Your task to perform on an android device: remove spam from my inbox in the gmail app Image 0: 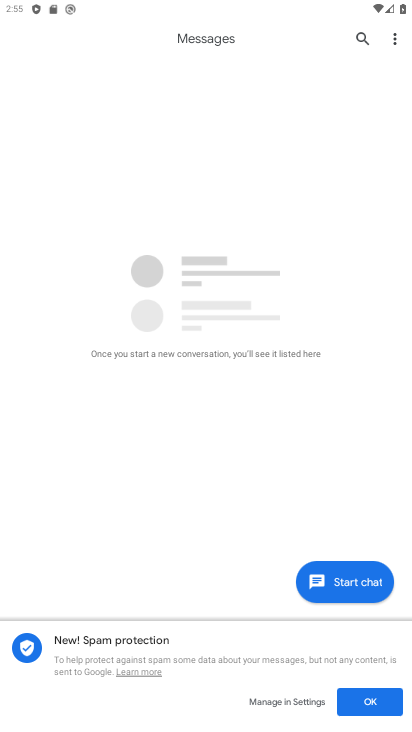
Step 0: press home button
Your task to perform on an android device: remove spam from my inbox in the gmail app Image 1: 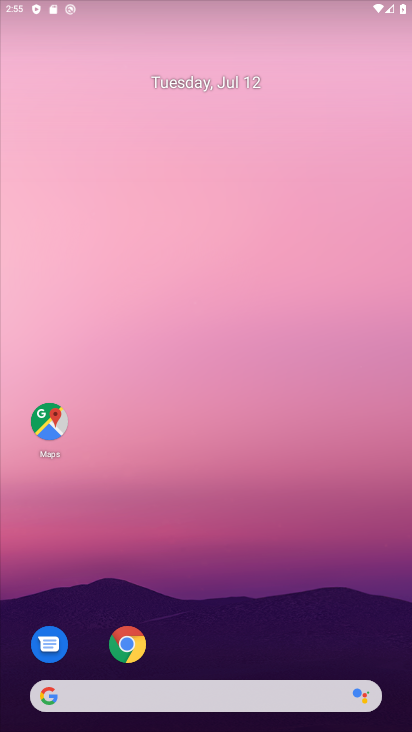
Step 1: drag from (227, 285) to (202, 198)
Your task to perform on an android device: remove spam from my inbox in the gmail app Image 2: 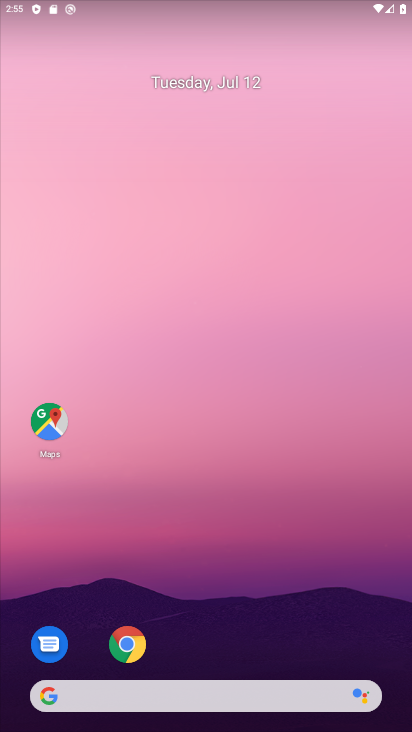
Step 2: drag from (250, 242) to (203, 22)
Your task to perform on an android device: remove spam from my inbox in the gmail app Image 3: 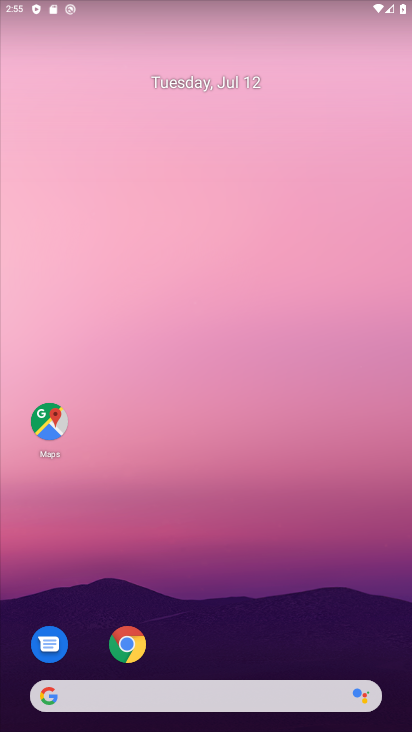
Step 3: drag from (299, 546) to (158, 22)
Your task to perform on an android device: remove spam from my inbox in the gmail app Image 4: 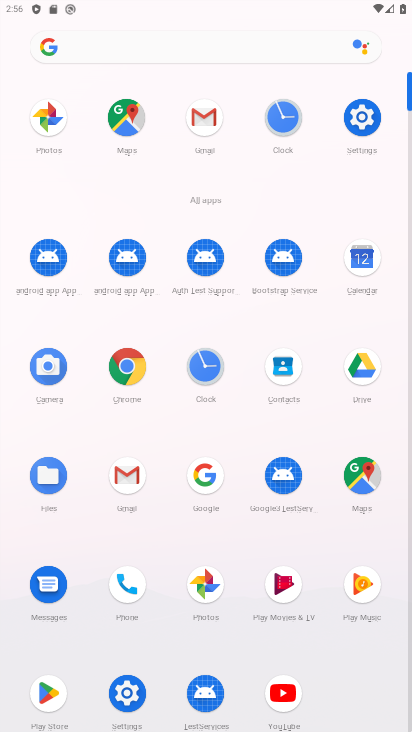
Step 4: click (216, 126)
Your task to perform on an android device: remove spam from my inbox in the gmail app Image 5: 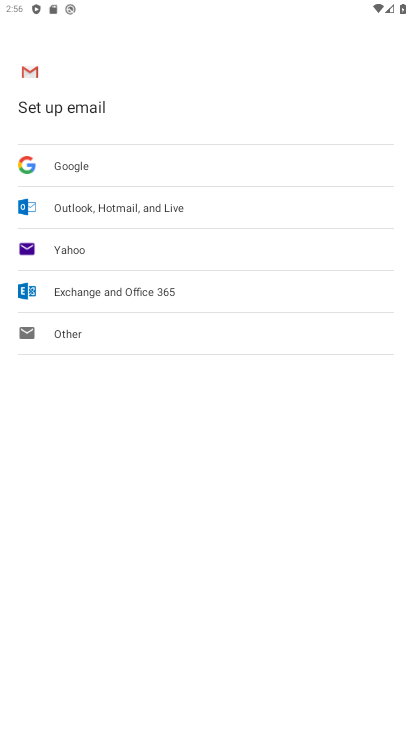
Step 5: press back button
Your task to perform on an android device: remove spam from my inbox in the gmail app Image 6: 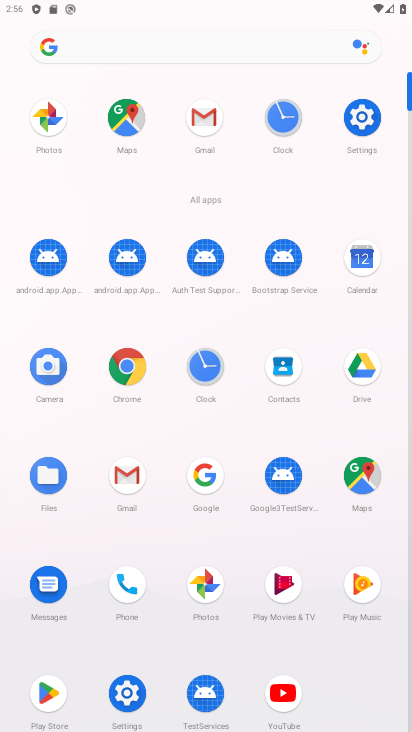
Step 6: click (216, 125)
Your task to perform on an android device: remove spam from my inbox in the gmail app Image 7: 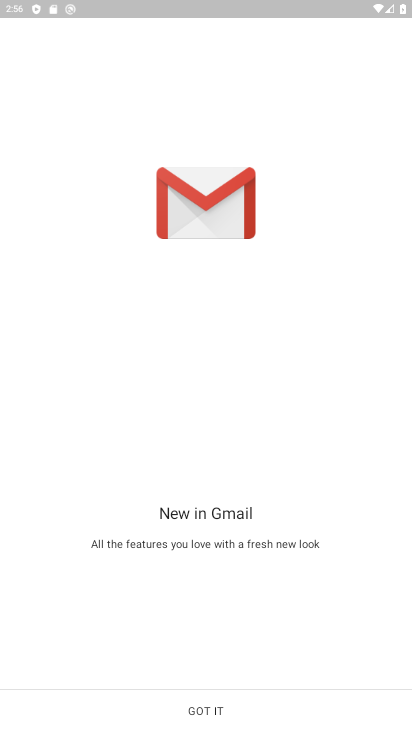
Step 7: click (236, 708)
Your task to perform on an android device: remove spam from my inbox in the gmail app Image 8: 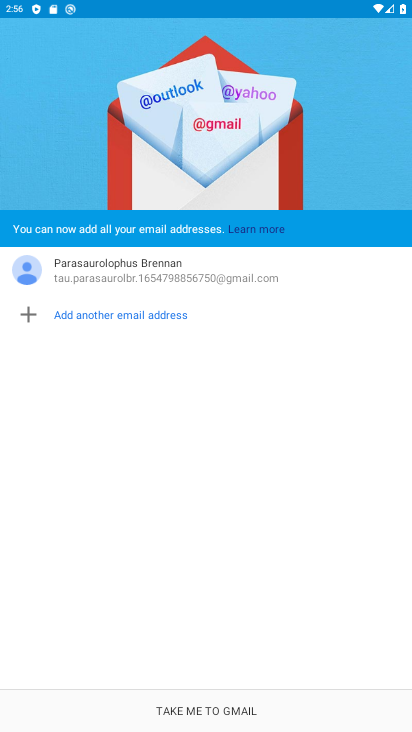
Step 8: click (237, 708)
Your task to perform on an android device: remove spam from my inbox in the gmail app Image 9: 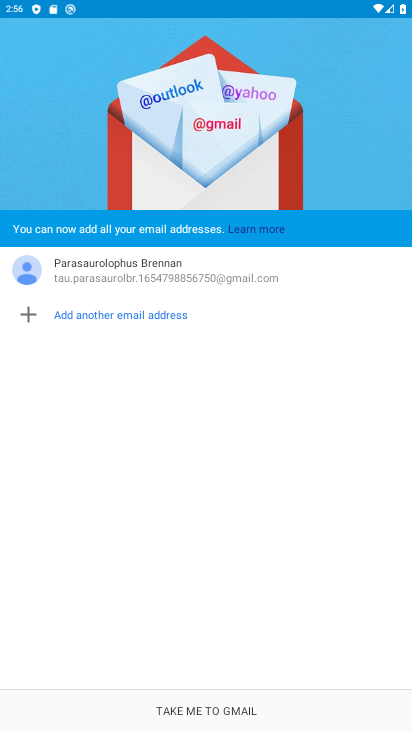
Step 9: click (239, 708)
Your task to perform on an android device: remove spam from my inbox in the gmail app Image 10: 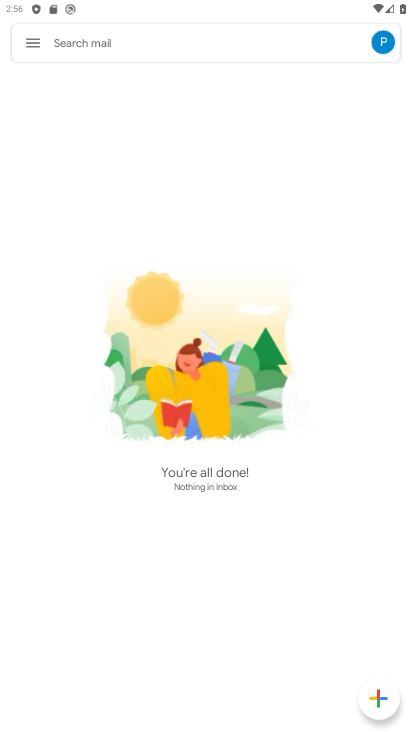
Step 10: click (32, 41)
Your task to perform on an android device: remove spam from my inbox in the gmail app Image 11: 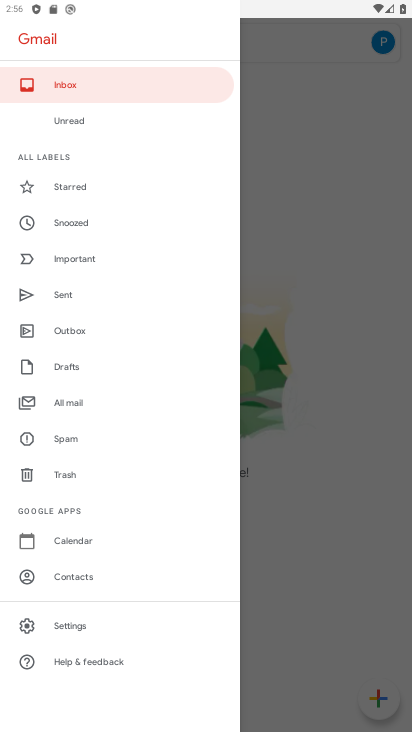
Step 11: click (100, 92)
Your task to perform on an android device: remove spam from my inbox in the gmail app Image 12: 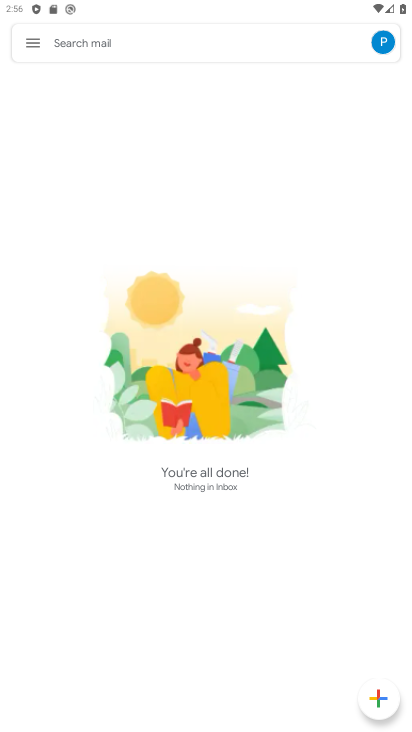
Step 12: click (370, 174)
Your task to perform on an android device: remove spam from my inbox in the gmail app Image 13: 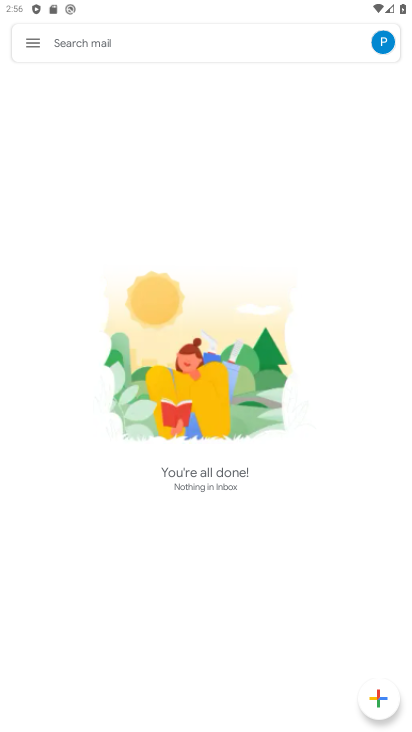
Step 13: task complete